Your task to perform on an android device: What's the weather going to be this weekend? Image 0: 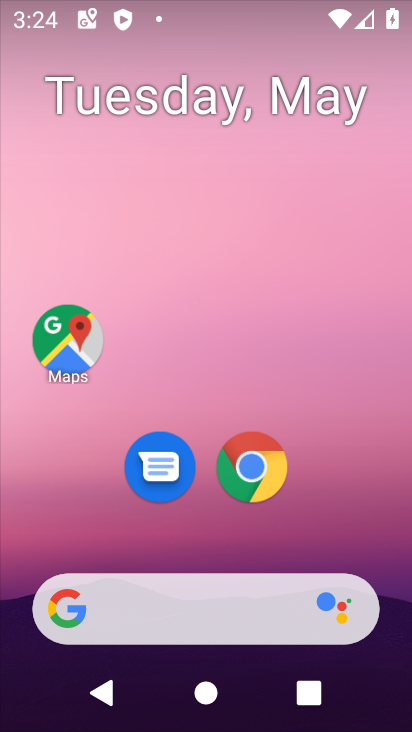
Step 0: click (137, 610)
Your task to perform on an android device: What's the weather going to be this weekend? Image 1: 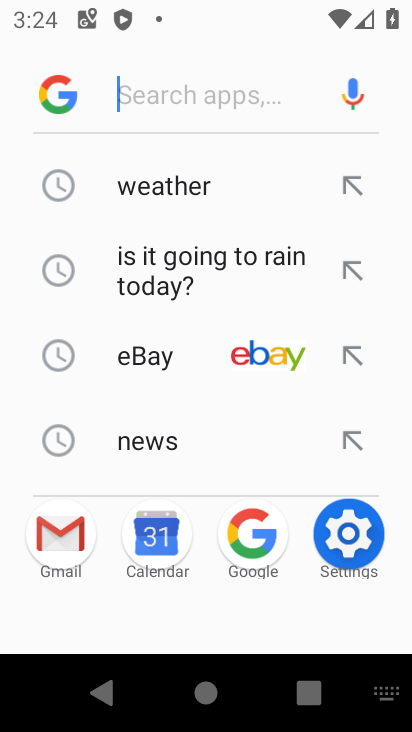
Step 1: type "weather going to be this weekend?"
Your task to perform on an android device: What's the weather going to be this weekend? Image 2: 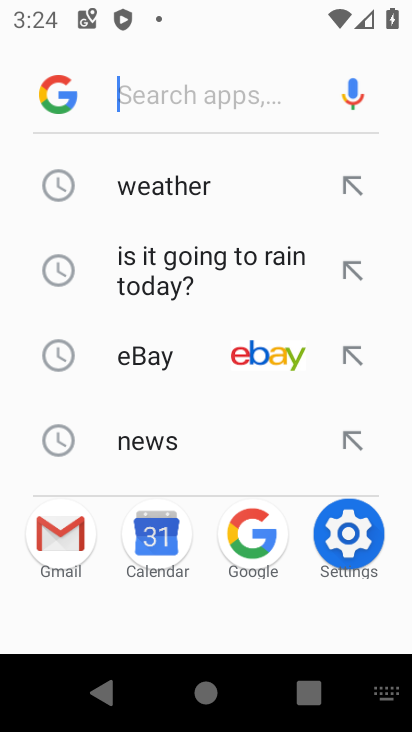
Step 2: click (177, 108)
Your task to perform on an android device: What's the weather going to be this weekend? Image 3: 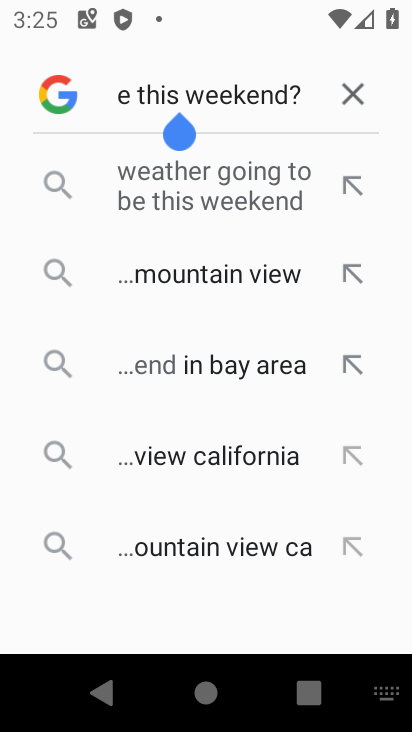
Step 3: click (204, 191)
Your task to perform on an android device: What's the weather going to be this weekend? Image 4: 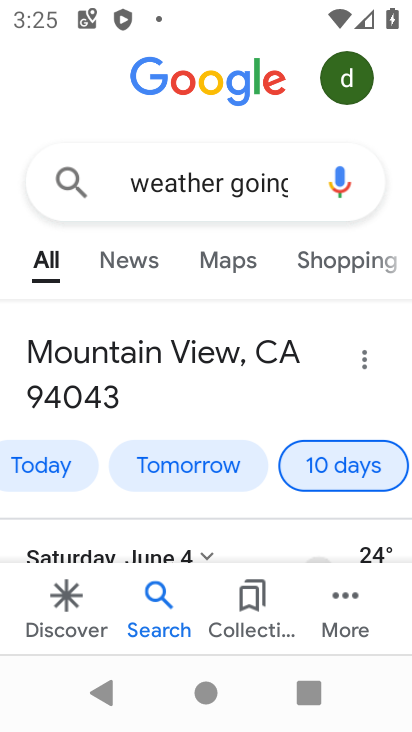
Step 4: task complete